Your task to perform on an android device: turn on improve location accuracy Image 0: 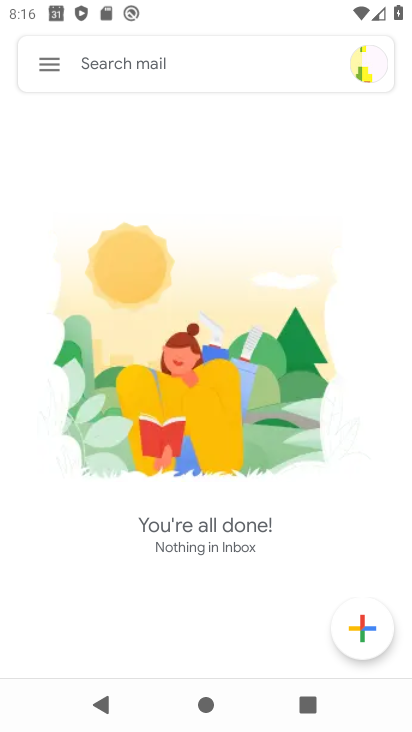
Step 0: click (406, 223)
Your task to perform on an android device: turn on improve location accuracy Image 1: 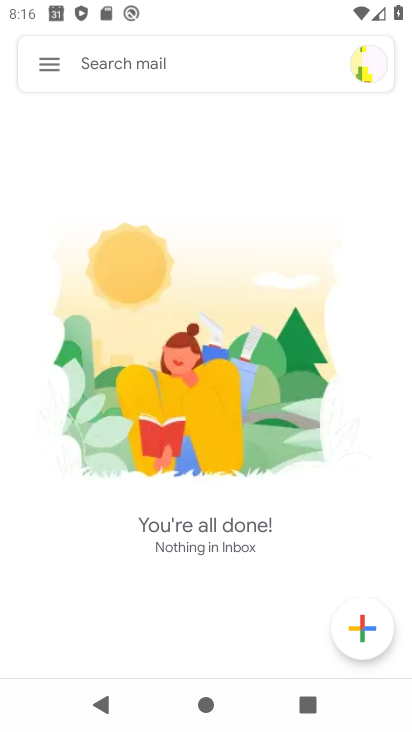
Step 1: press home button
Your task to perform on an android device: turn on improve location accuracy Image 2: 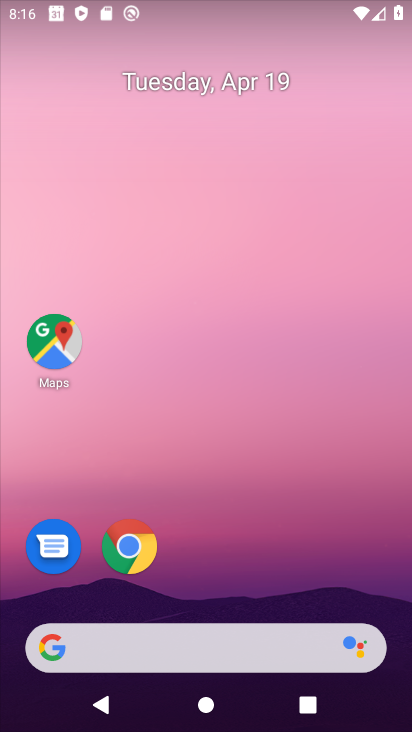
Step 2: drag from (37, 575) to (253, 172)
Your task to perform on an android device: turn on improve location accuracy Image 3: 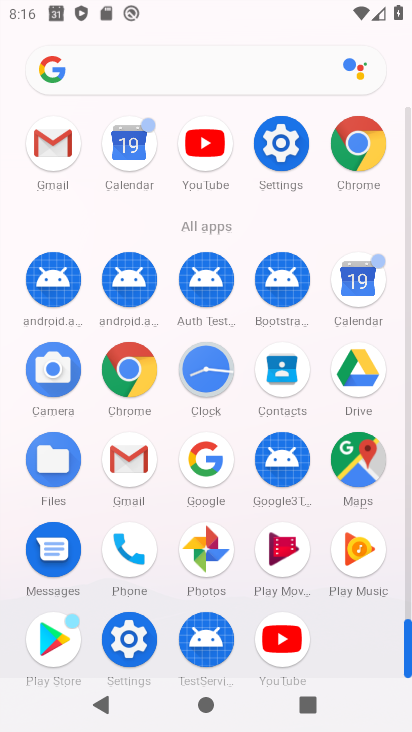
Step 3: click (282, 143)
Your task to perform on an android device: turn on improve location accuracy Image 4: 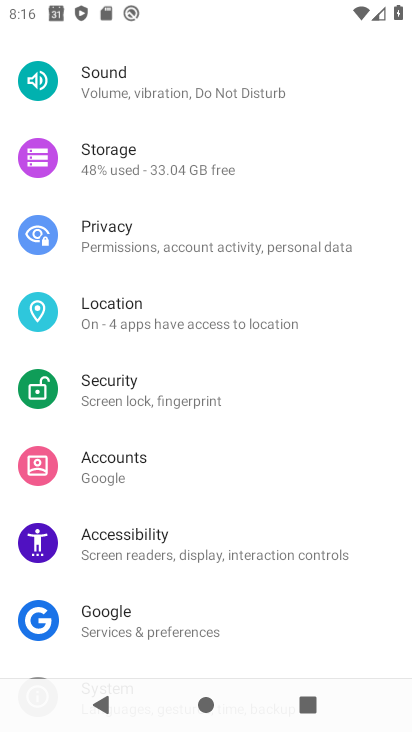
Step 4: click (180, 311)
Your task to perform on an android device: turn on improve location accuracy Image 5: 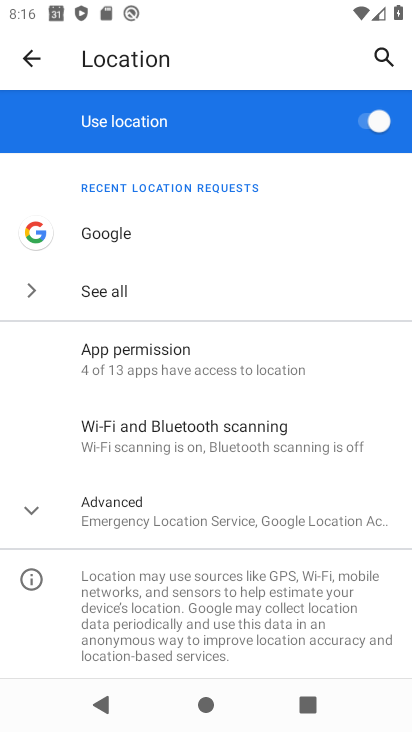
Step 5: click (126, 512)
Your task to perform on an android device: turn on improve location accuracy Image 6: 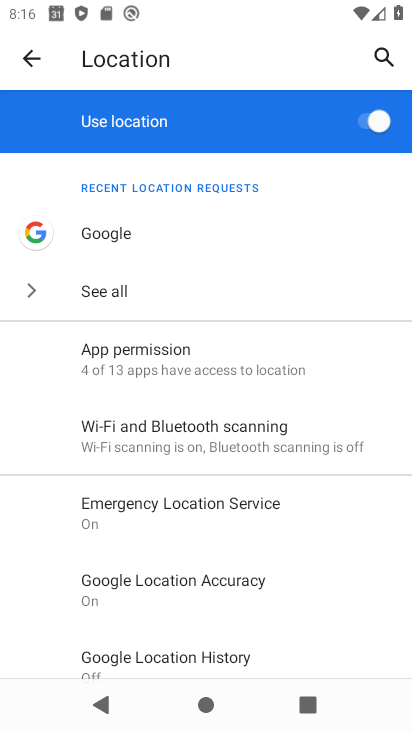
Step 6: click (159, 583)
Your task to perform on an android device: turn on improve location accuracy Image 7: 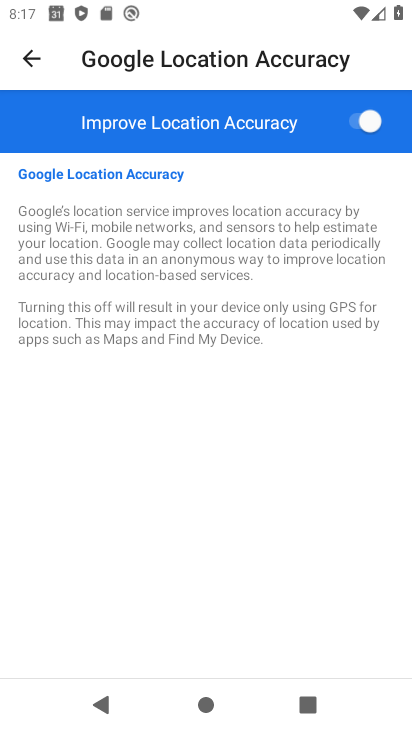
Step 7: task complete